Your task to perform on an android device: Find coffee shops on Maps Image 0: 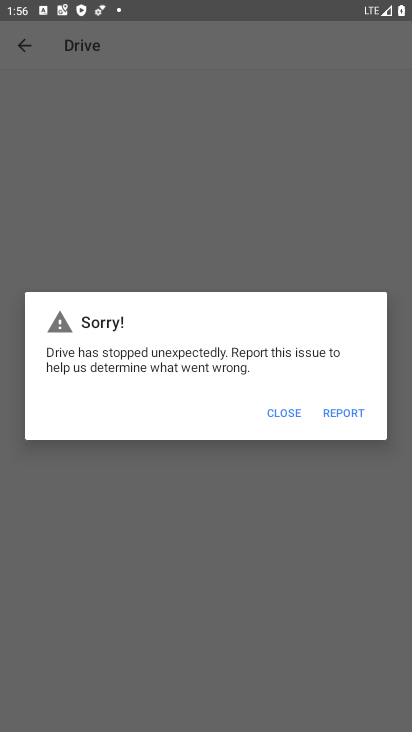
Step 0: press home button
Your task to perform on an android device: Find coffee shops on Maps Image 1: 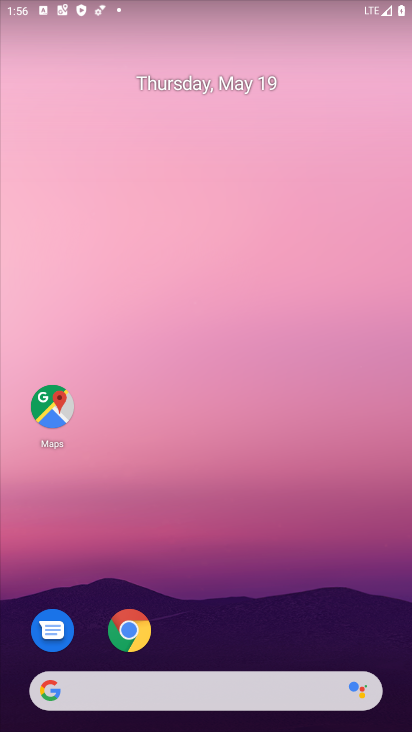
Step 1: click (52, 407)
Your task to perform on an android device: Find coffee shops on Maps Image 2: 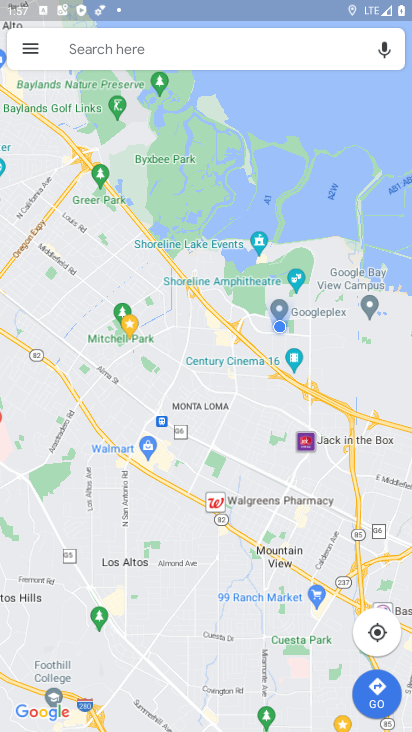
Step 2: click (110, 52)
Your task to perform on an android device: Find coffee shops on Maps Image 3: 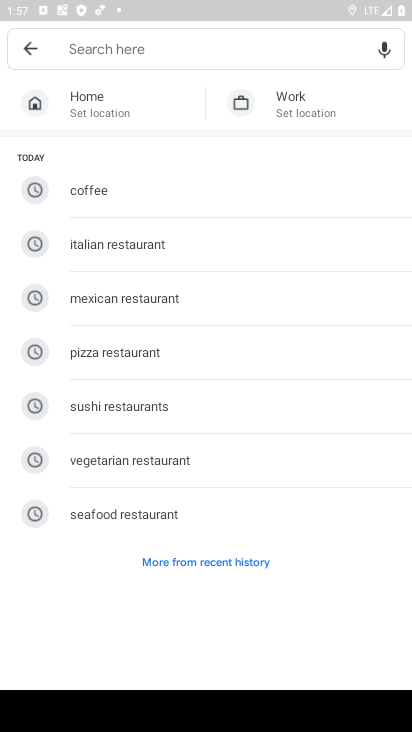
Step 3: type "coffee shop"
Your task to perform on an android device: Find coffee shops on Maps Image 4: 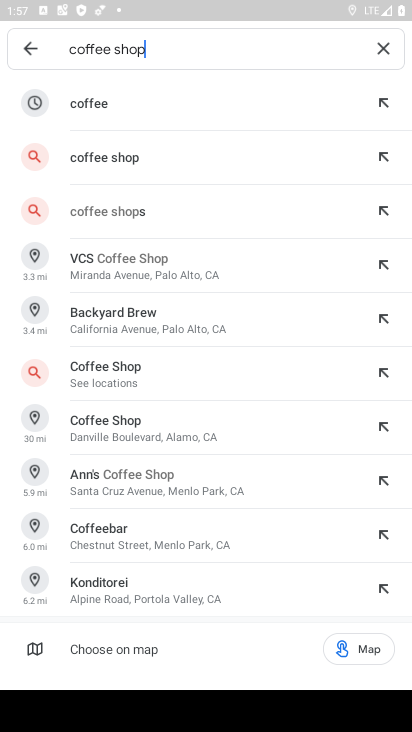
Step 4: click (136, 159)
Your task to perform on an android device: Find coffee shops on Maps Image 5: 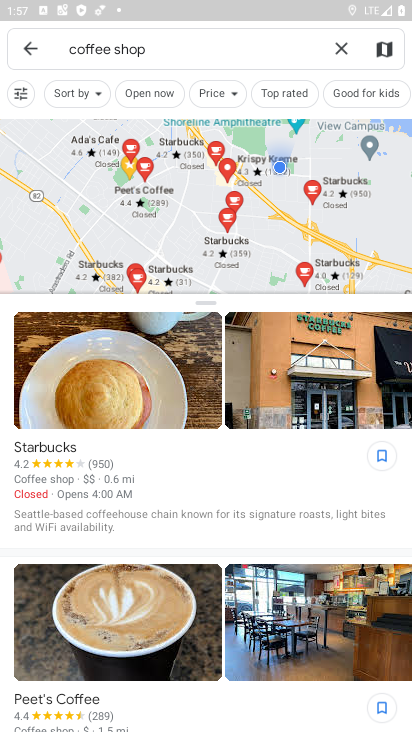
Step 5: task complete